Your task to perform on an android device: Do I have any events today? Image 0: 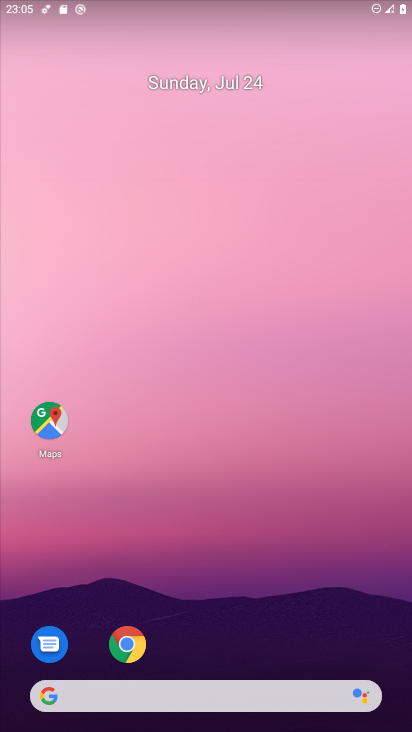
Step 0: drag from (310, 631) to (297, 79)
Your task to perform on an android device: Do I have any events today? Image 1: 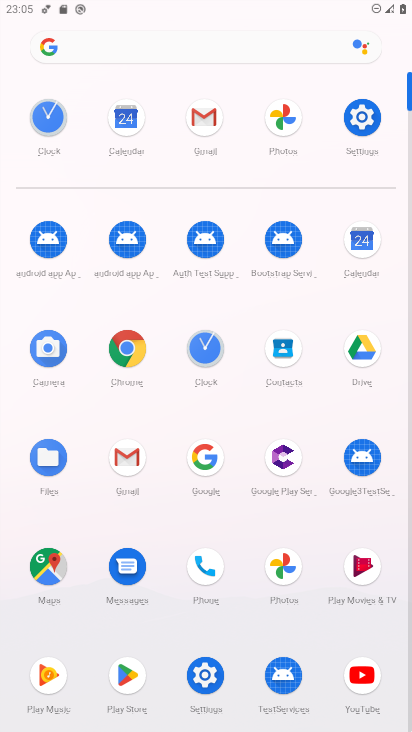
Step 1: click (358, 239)
Your task to perform on an android device: Do I have any events today? Image 2: 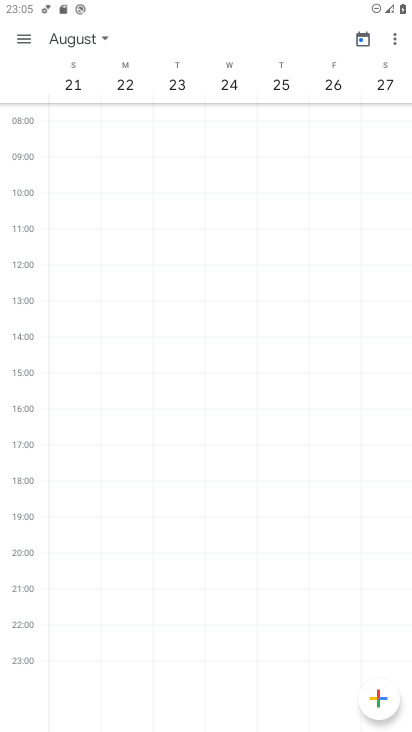
Step 2: click (19, 28)
Your task to perform on an android device: Do I have any events today? Image 3: 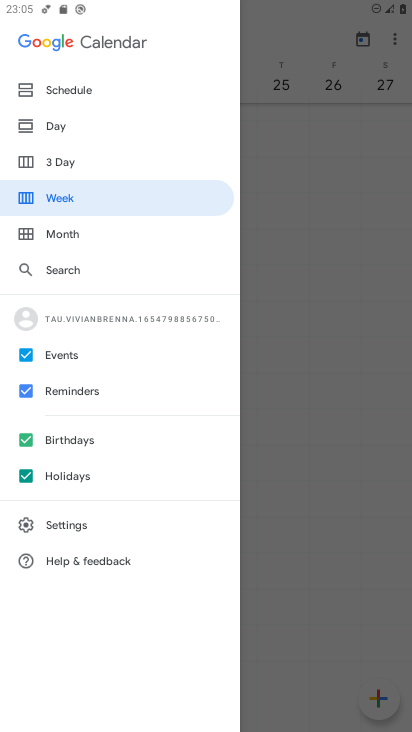
Step 3: click (49, 123)
Your task to perform on an android device: Do I have any events today? Image 4: 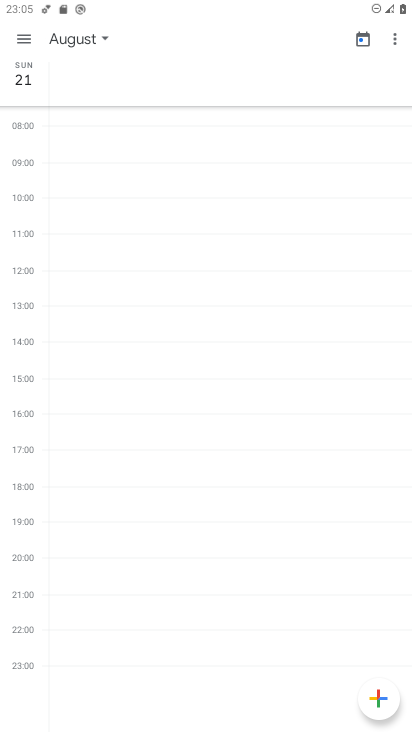
Step 4: click (107, 37)
Your task to perform on an android device: Do I have any events today? Image 5: 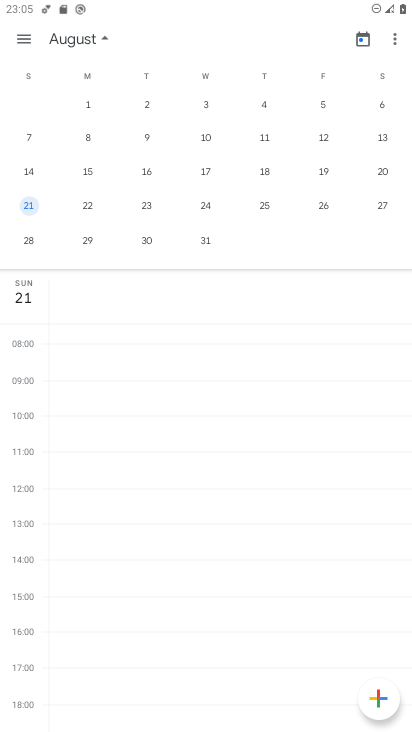
Step 5: drag from (33, 172) to (401, 167)
Your task to perform on an android device: Do I have any events today? Image 6: 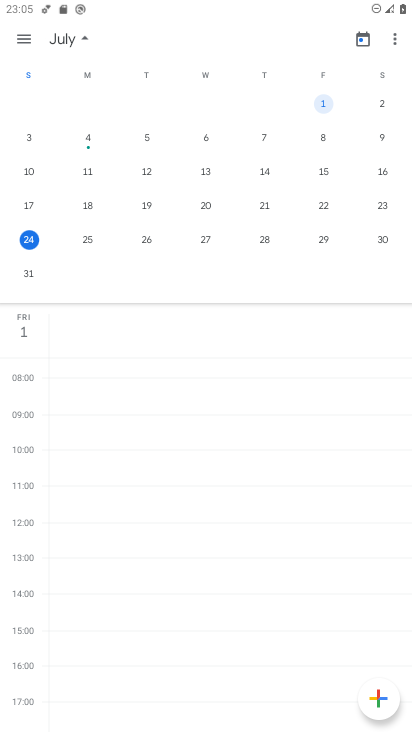
Step 6: click (32, 244)
Your task to perform on an android device: Do I have any events today? Image 7: 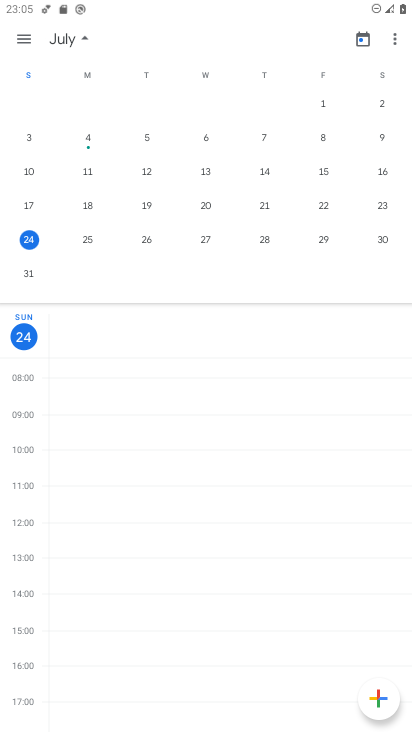
Step 7: task complete